Your task to perform on an android device: Clear all items from cart on amazon. Add razer nari to the cart on amazon, then select checkout. Image 0: 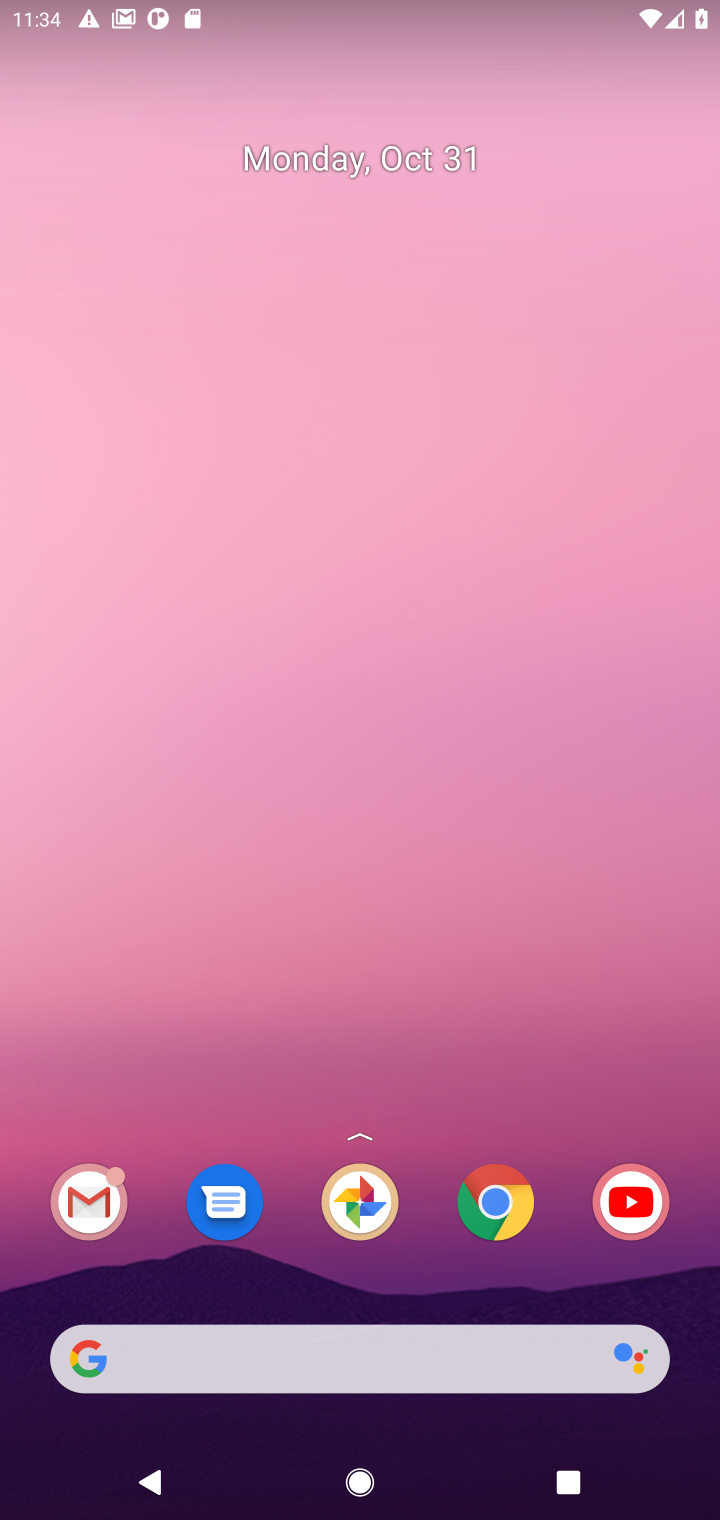
Step 0: click (492, 1184)
Your task to perform on an android device: Clear all items from cart on amazon. Add razer nari to the cart on amazon, then select checkout. Image 1: 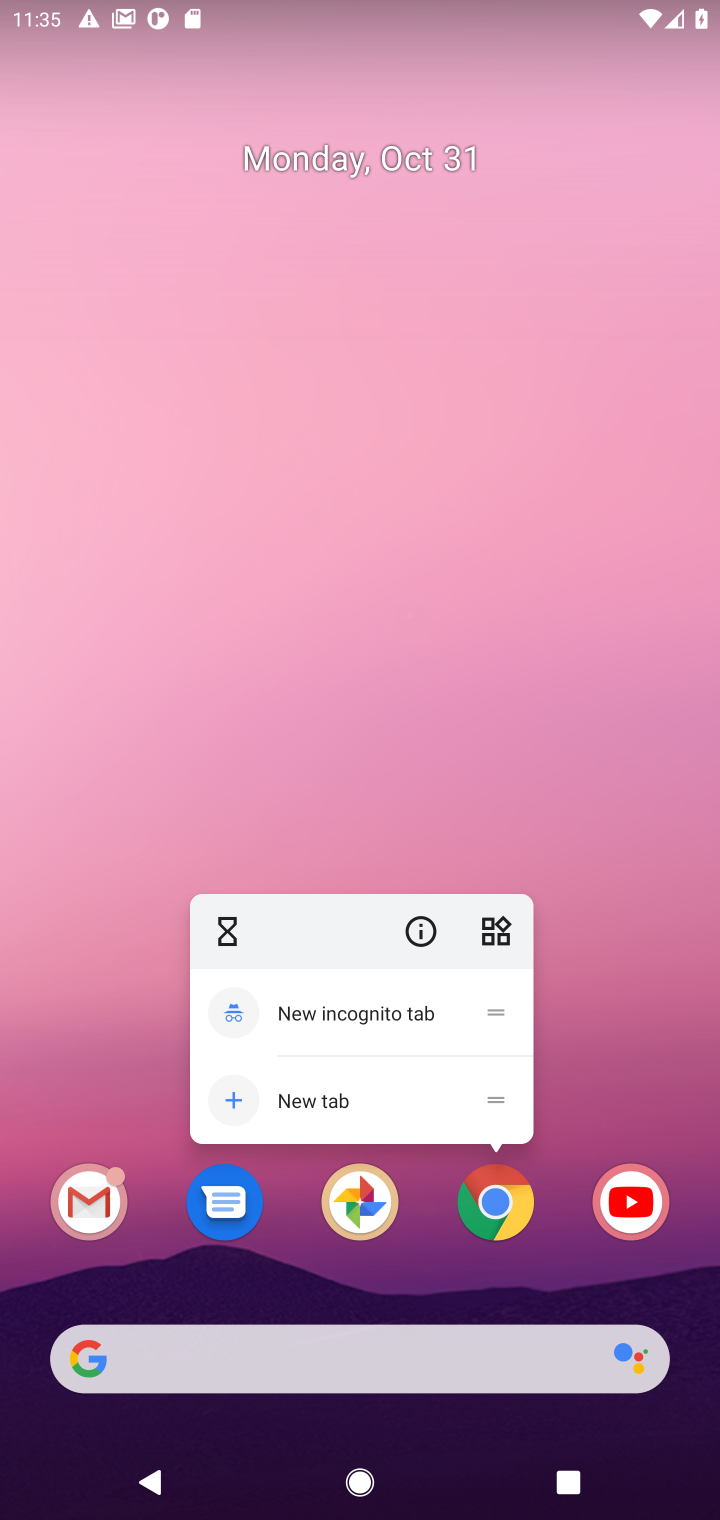
Step 1: click (491, 1216)
Your task to perform on an android device: Clear all items from cart on amazon. Add razer nari to the cart on amazon, then select checkout. Image 2: 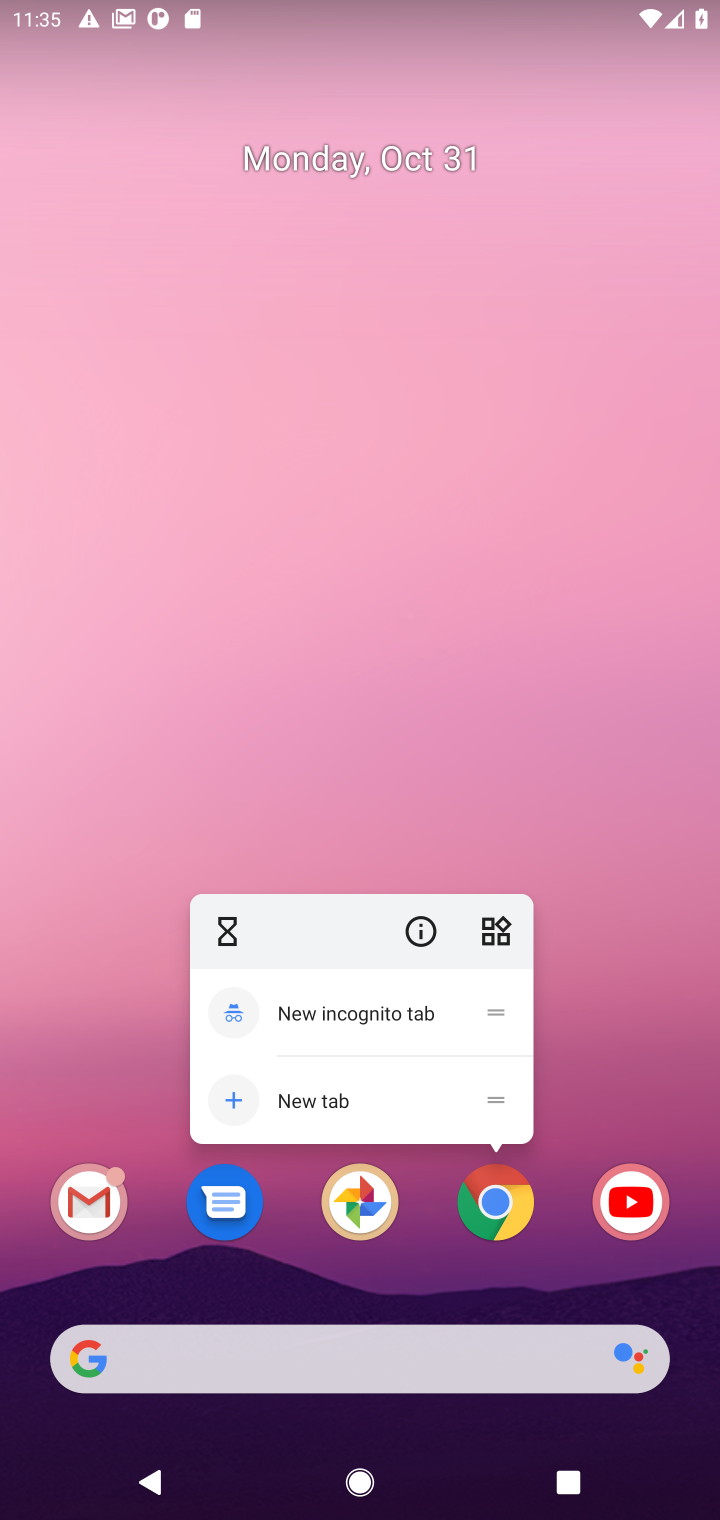
Step 2: click (509, 1216)
Your task to perform on an android device: Clear all items from cart on amazon. Add razer nari to the cart on amazon, then select checkout. Image 3: 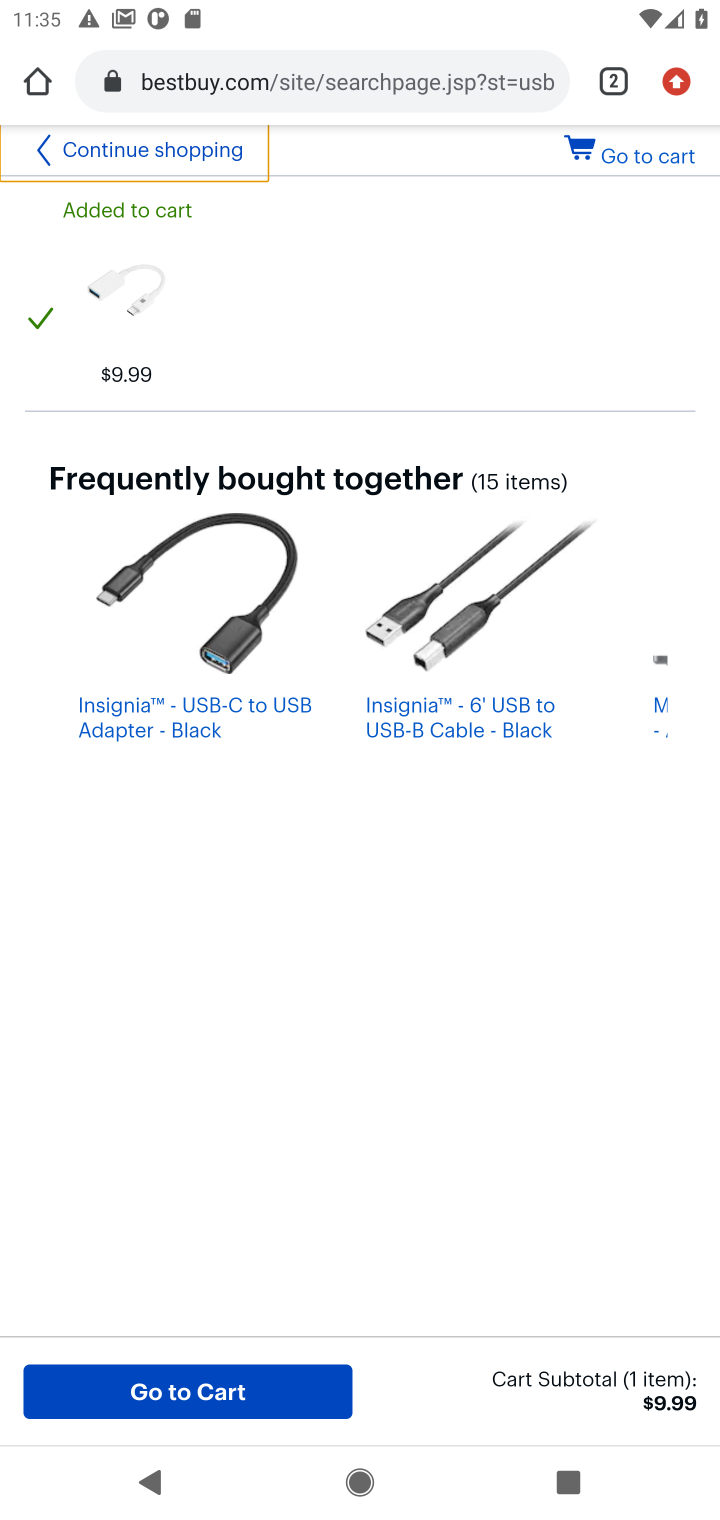
Step 3: click (608, 84)
Your task to perform on an android device: Clear all items from cart on amazon. Add razer nari to the cart on amazon, then select checkout. Image 4: 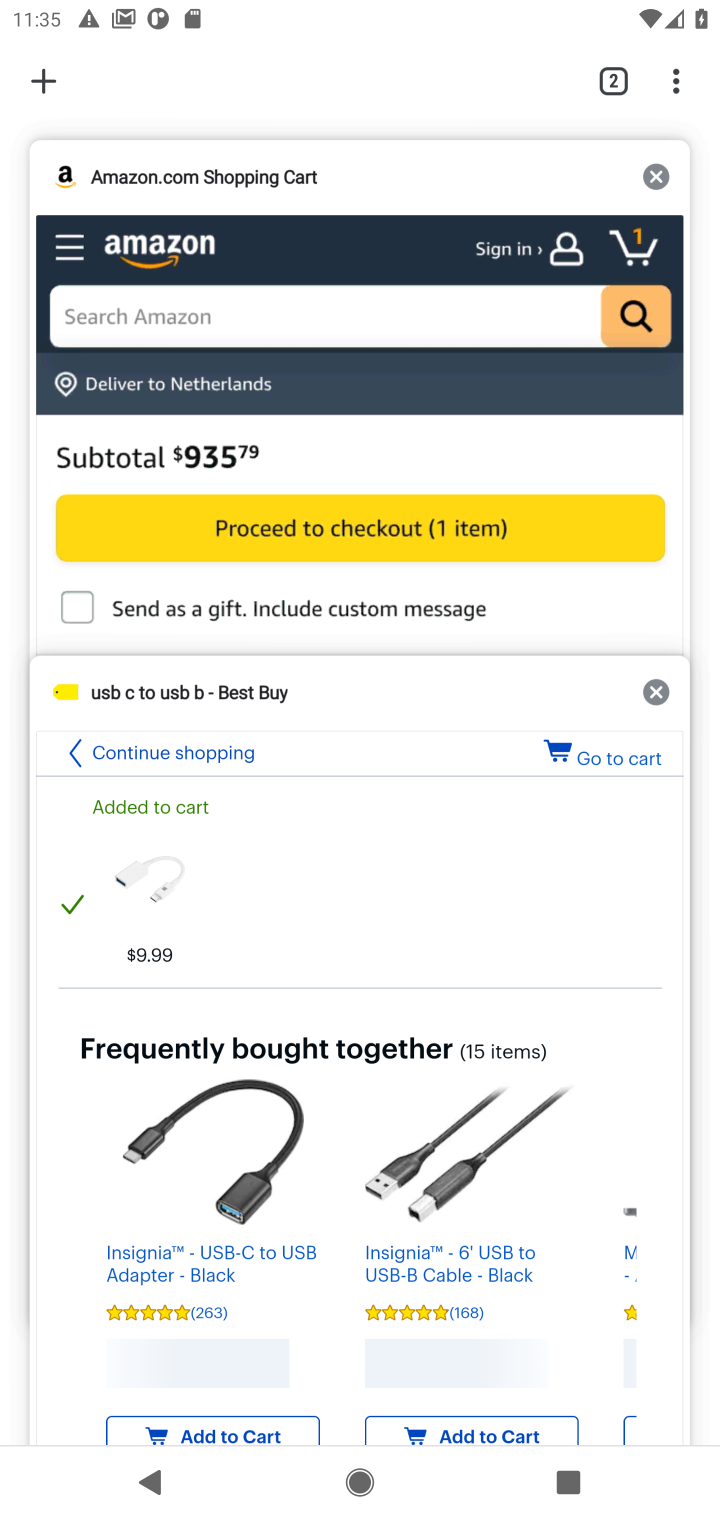
Step 4: click (388, 263)
Your task to perform on an android device: Clear all items from cart on amazon. Add razer nari to the cart on amazon, then select checkout. Image 5: 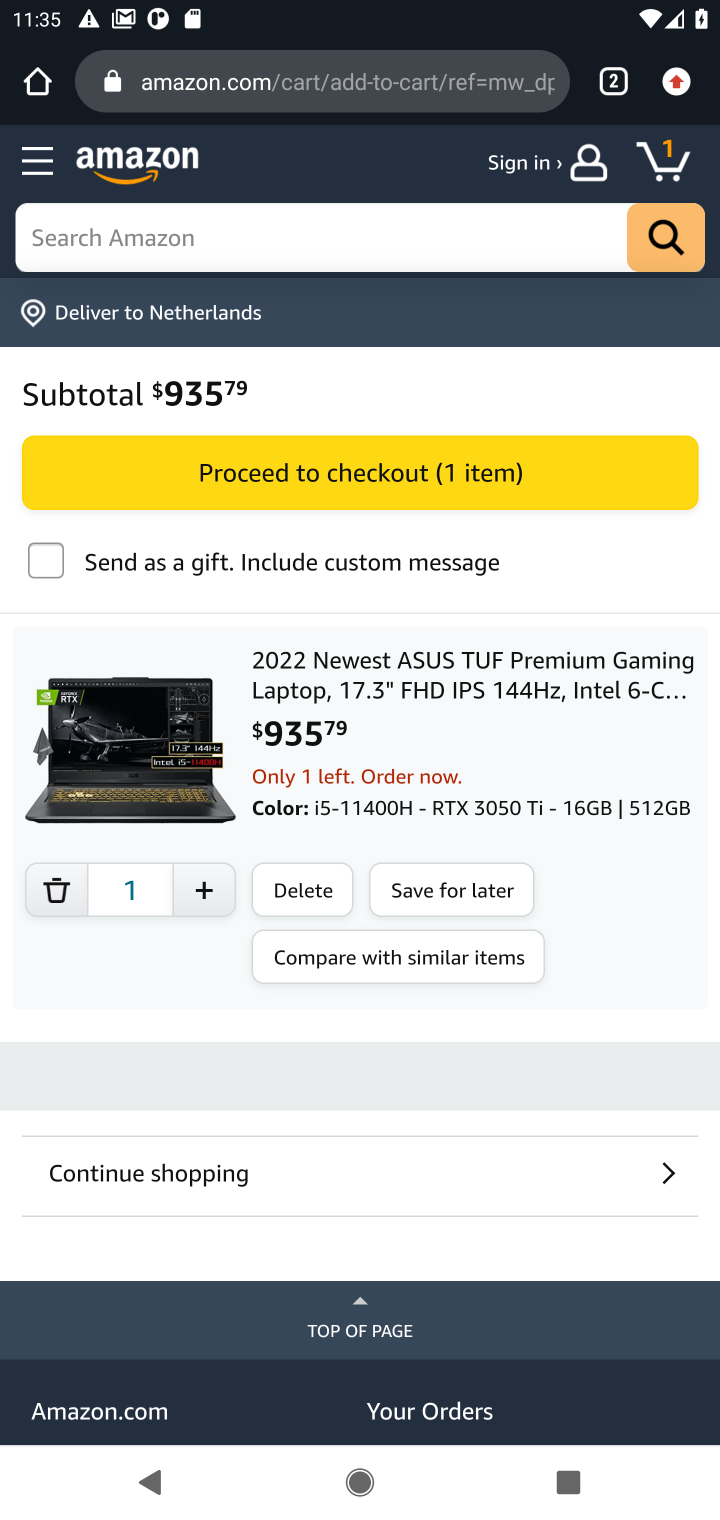
Step 5: click (665, 153)
Your task to perform on an android device: Clear all items from cart on amazon. Add razer nari to the cart on amazon, then select checkout. Image 6: 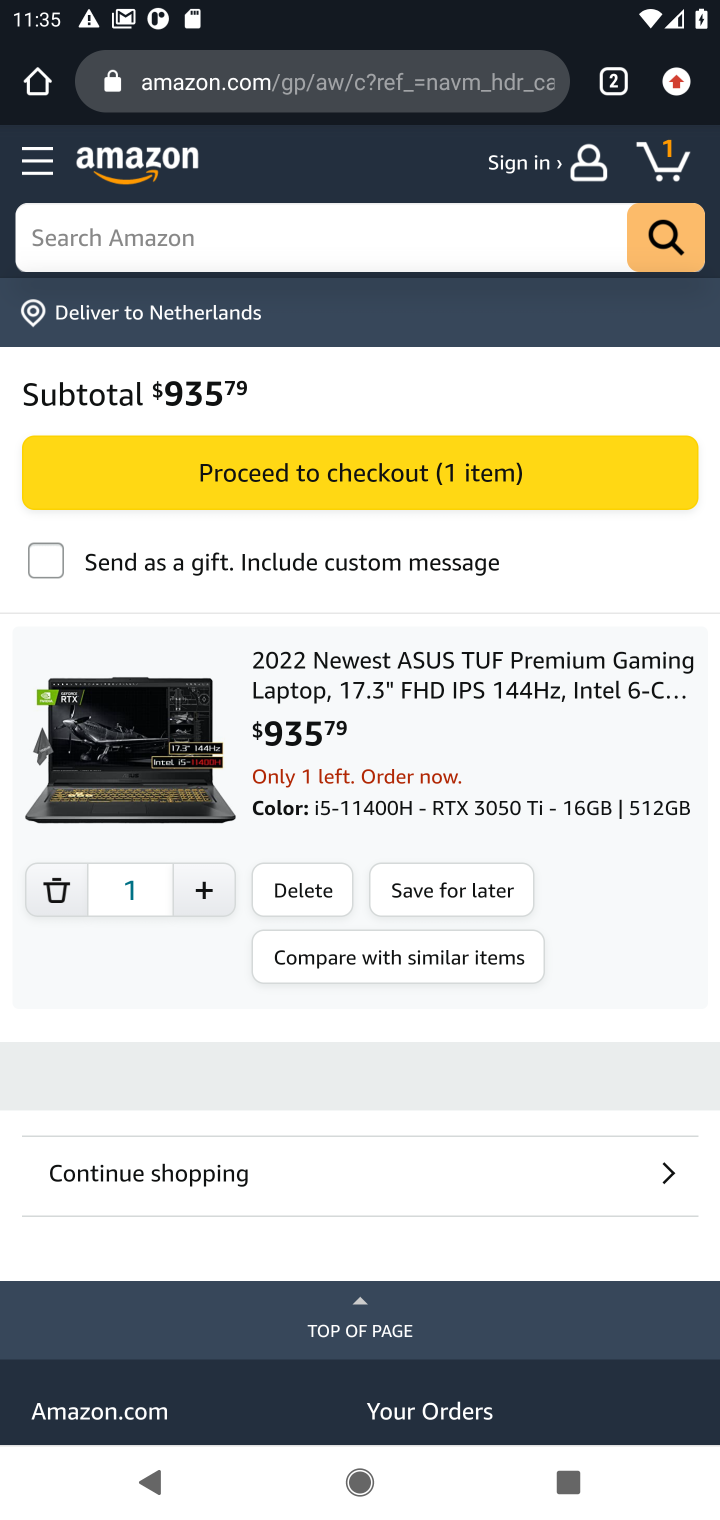
Step 6: click (423, 231)
Your task to perform on an android device: Clear all items from cart on amazon. Add razer nari to the cart on amazon, then select checkout. Image 7: 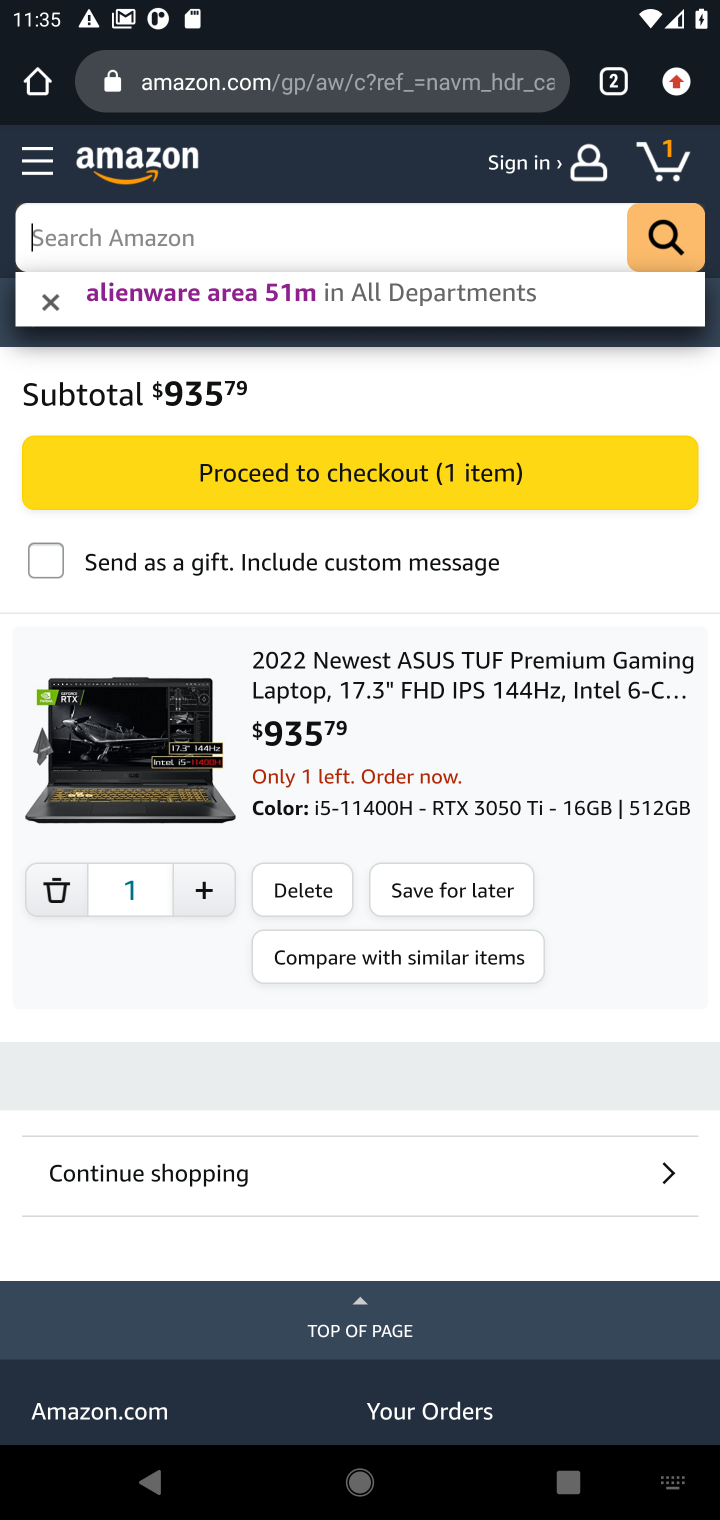
Step 7: type "razer nari "
Your task to perform on an android device: Clear all items from cart on amazon. Add razer nari to the cart on amazon, then select checkout. Image 8: 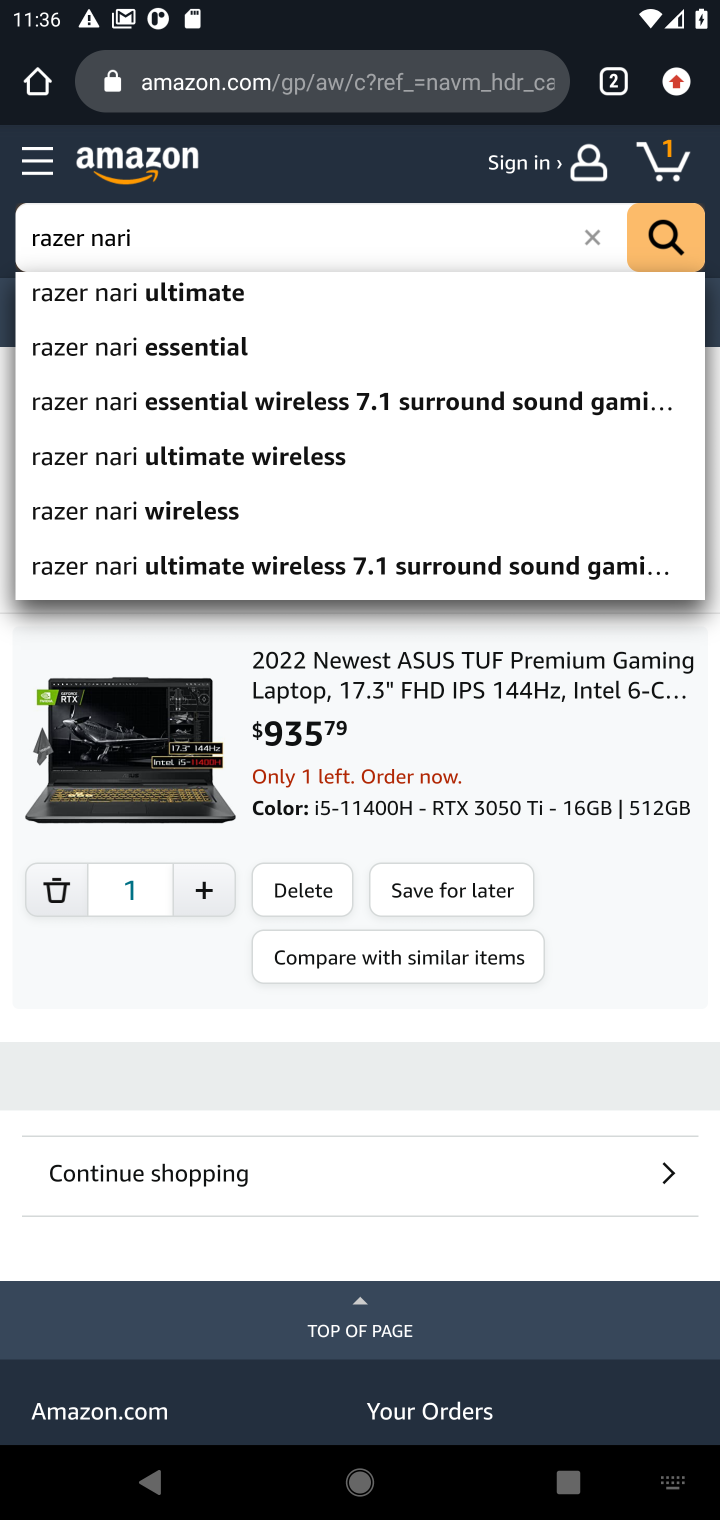
Step 8: click (146, 300)
Your task to perform on an android device: Clear all items from cart on amazon. Add razer nari to the cart on amazon, then select checkout. Image 9: 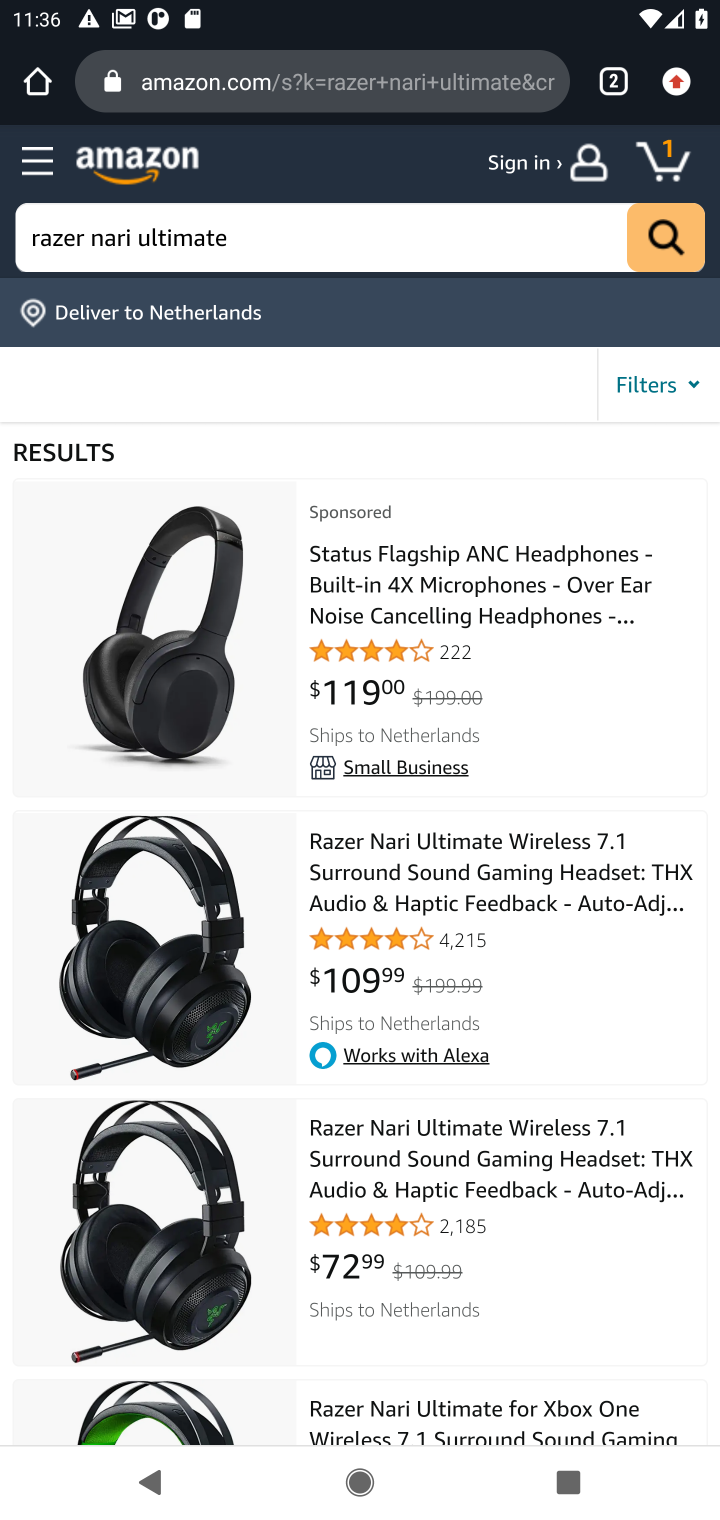
Step 9: click (459, 857)
Your task to perform on an android device: Clear all items from cart on amazon. Add razer nari to the cart on amazon, then select checkout. Image 10: 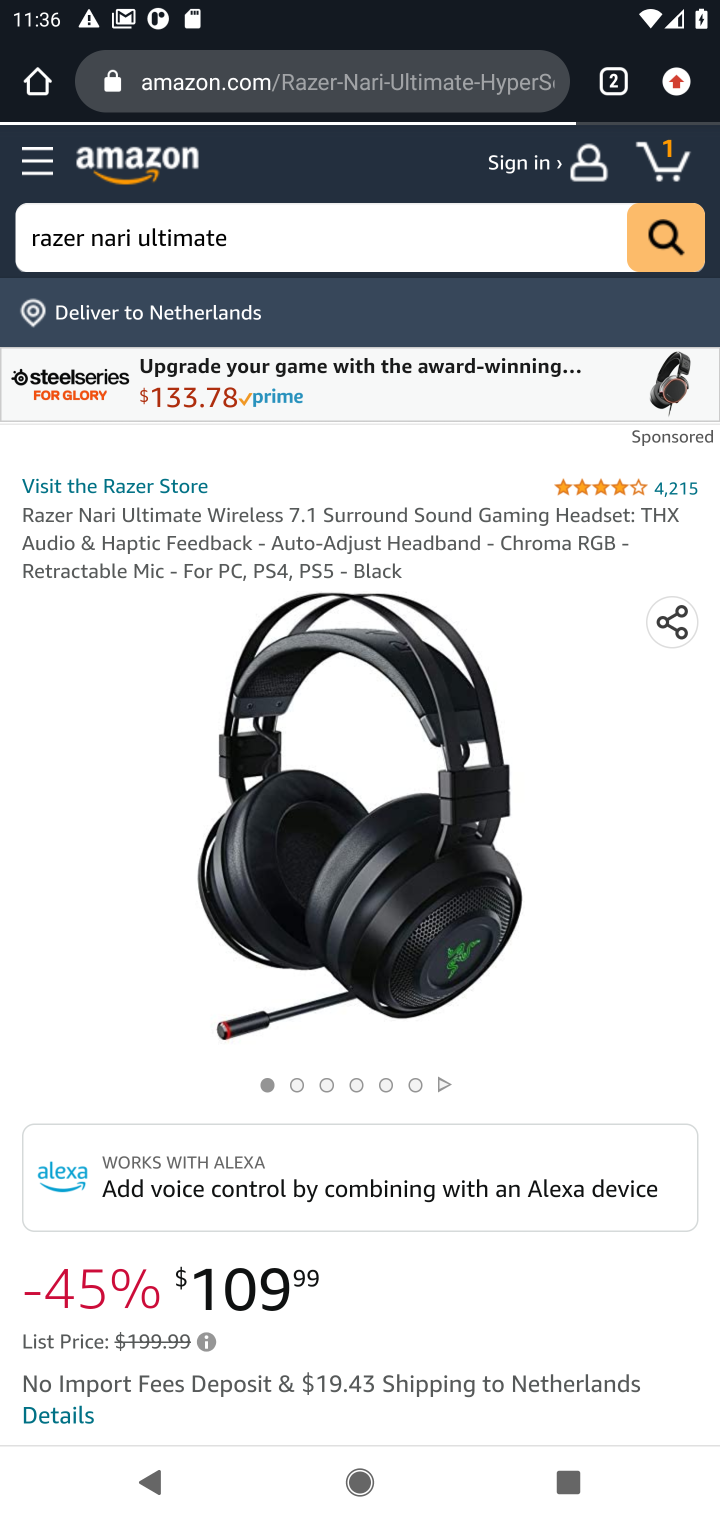
Step 10: drag from (392, 1203) to (490, 421)
Your task to perform on an android device: Clear all items from cart on amazon. Add razer nari to the cart on amazon, then select checkout. Image 11: 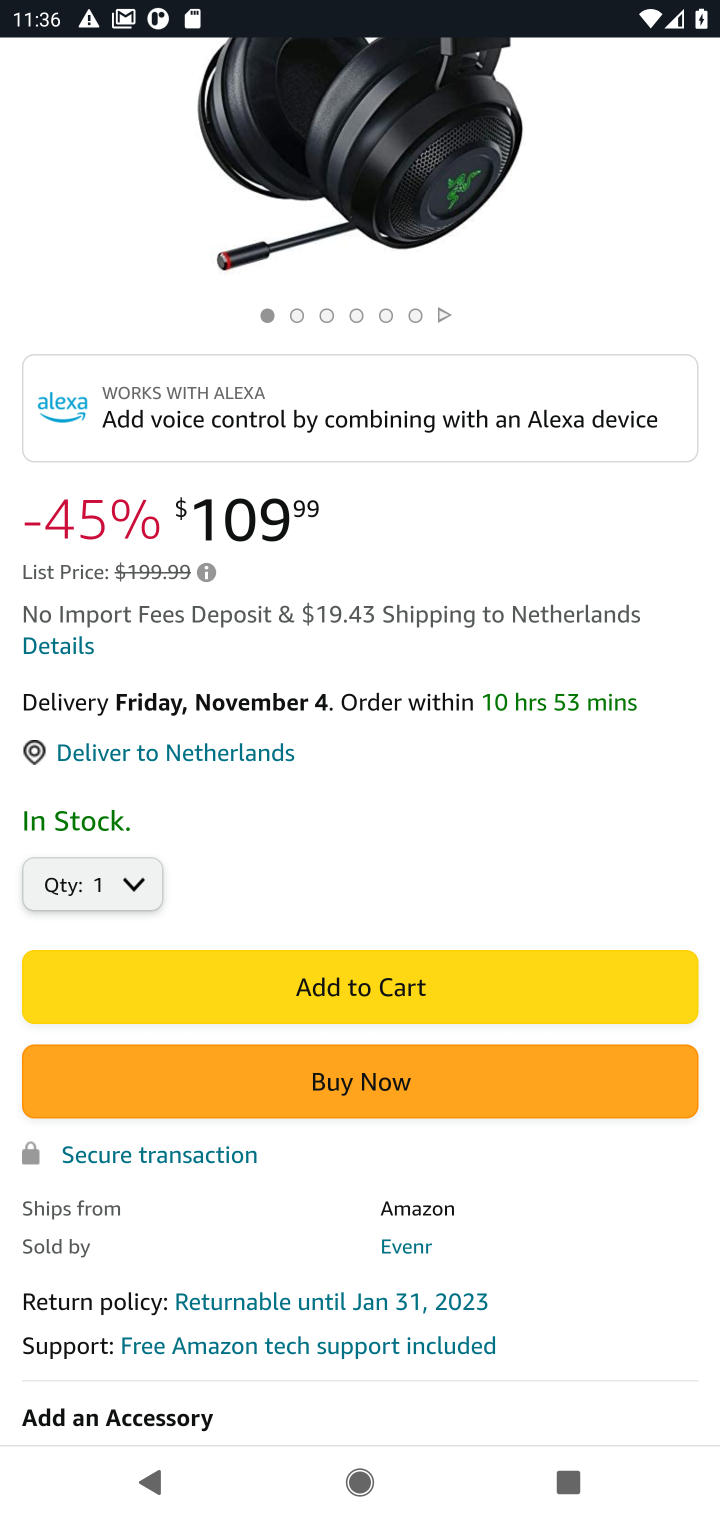
Step 11: click (434, 1156)
Your task to perform on an android device: Clear all items from cart on amazon. Add razer nari to the cart on amazon, then select checkout. Image 12: 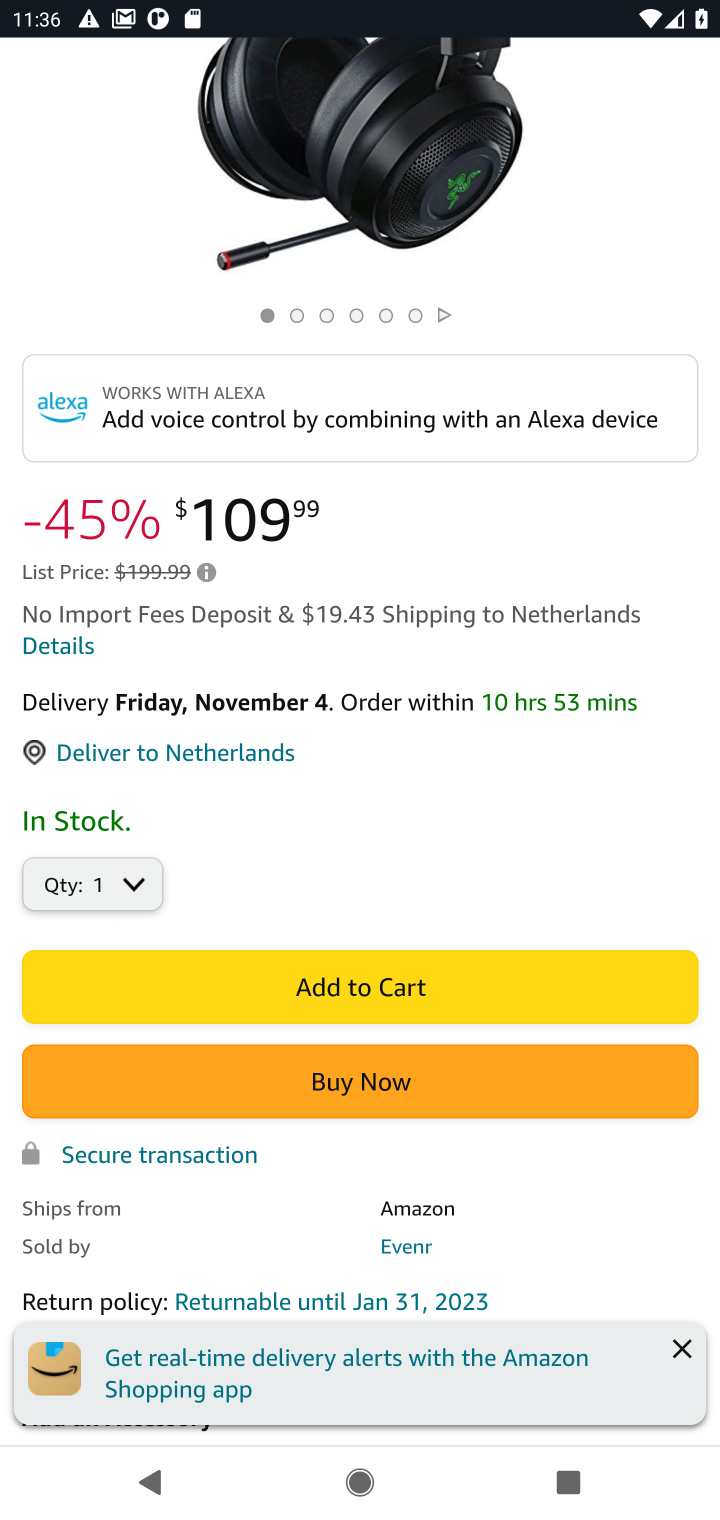
Step 12: click (444, 989)
Your task to perform on an android device: Clear all items from cart on amazon. Add razer nari to the cart on amazon, then select checkout. Image 13: 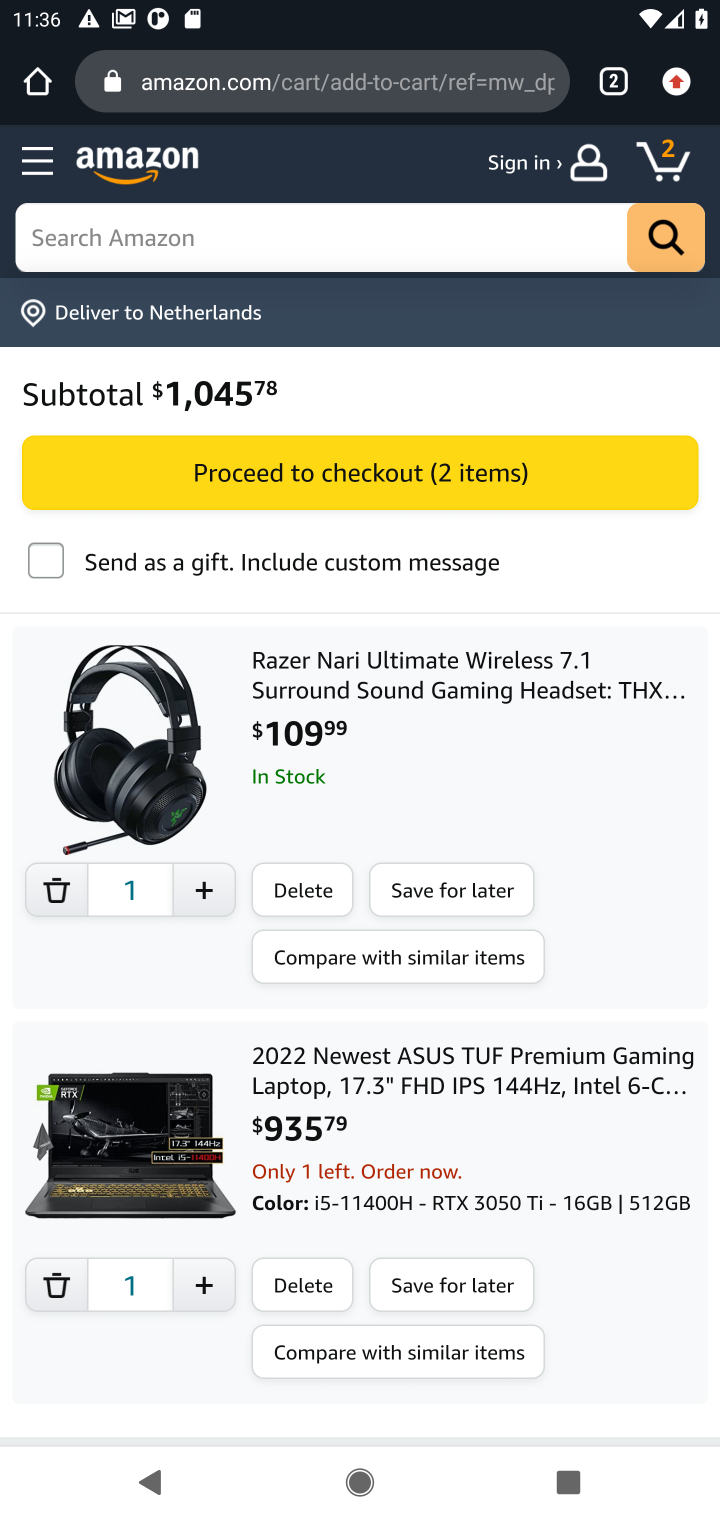
Step 13: click (450, 478)
Your task to perform on an android device: Clear all items from cart on amazon. Add razer nari to the cart on amazon, then select checkout. Image 14: 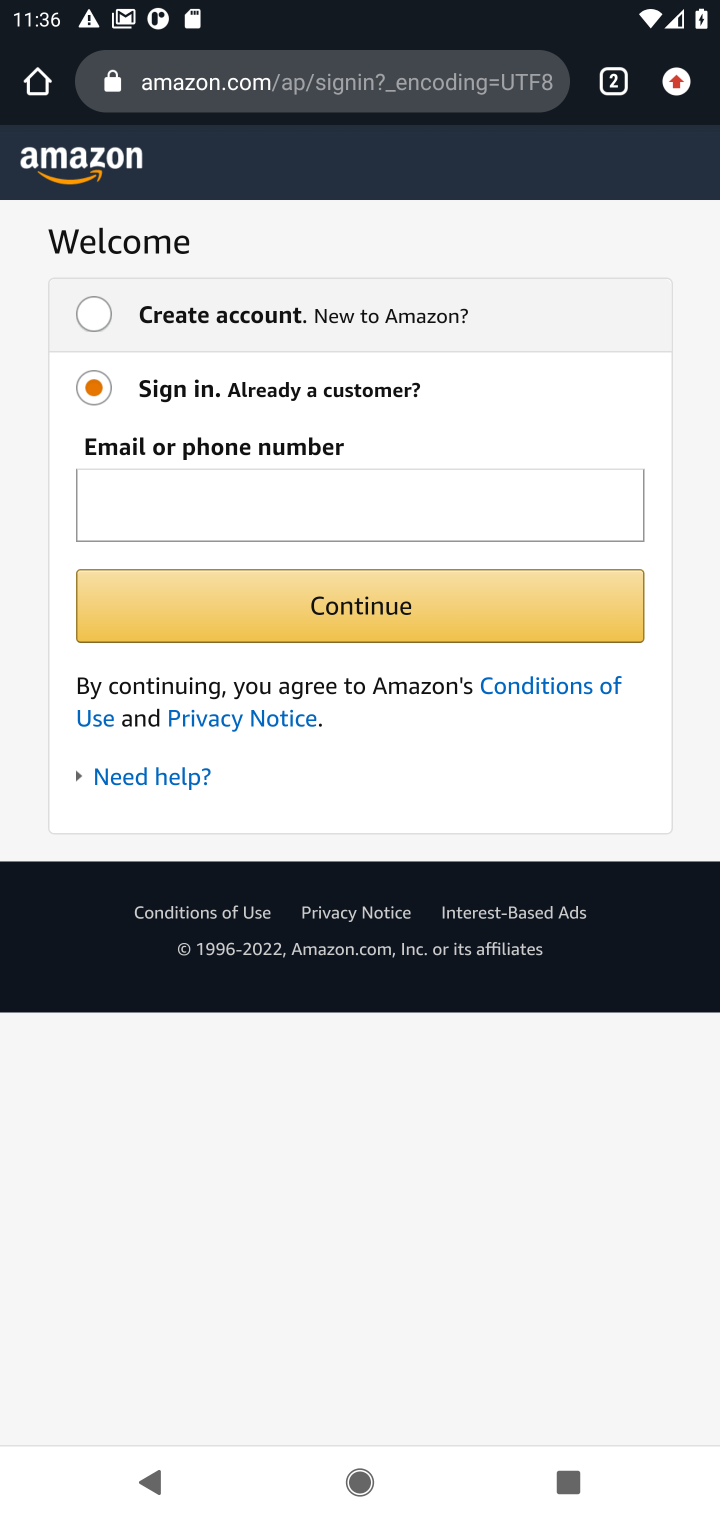
Step 14: task complete